Your task to perform on an android device: open a bookmark in the chrome app Image 0: 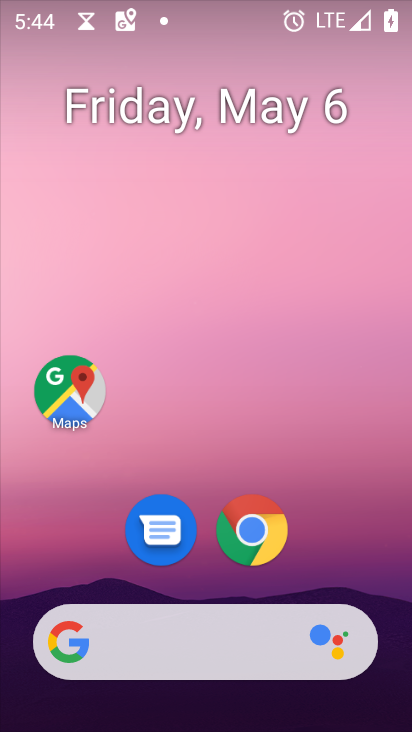
Step 0: click (265, 525)
Your task to perform on an android device: open a bookmark in the chrome app Image 1: 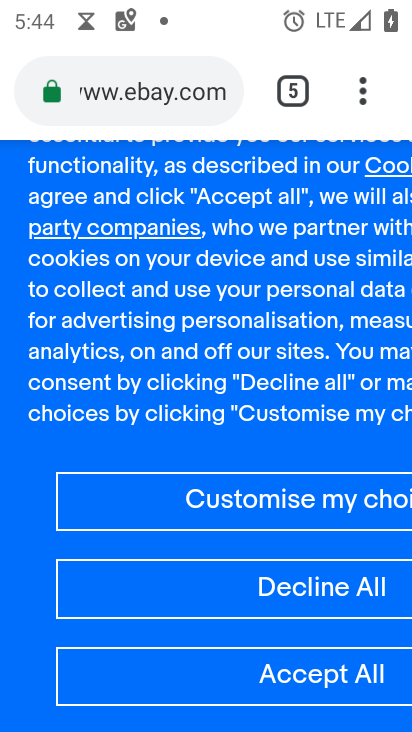
Step 1: click (363, 84)
Your task to perform on an android device: open a bookmark in the chrome app Image 2: 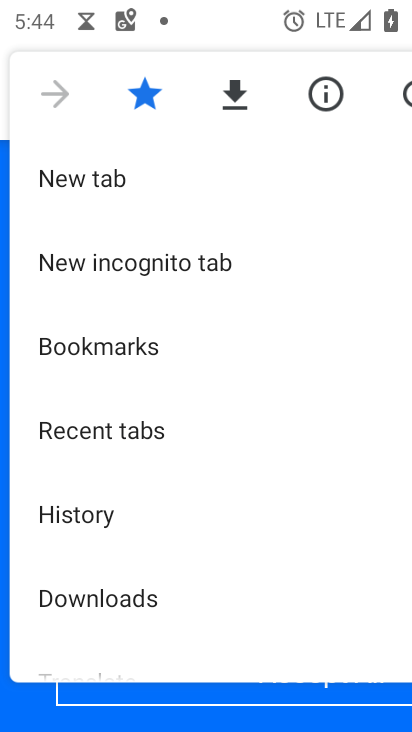
Step 2: click (119, 344)
Your task to perform on an android device: open a bookmark in the chrome app Image 3: 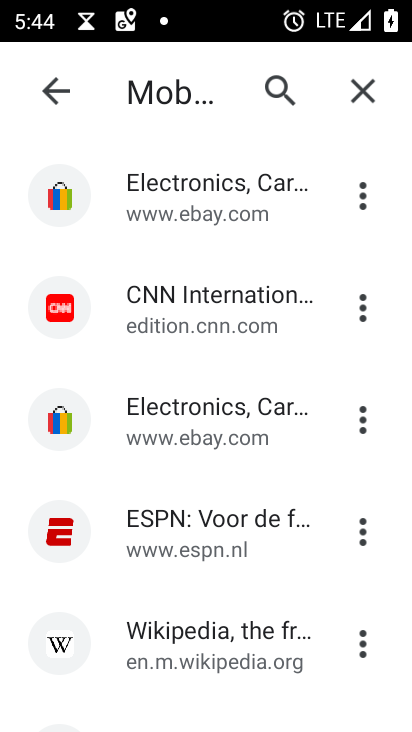
Step 3: click (189, 415)
Your task to perform on an android device: open a bookmark in the chrome app Image 4: 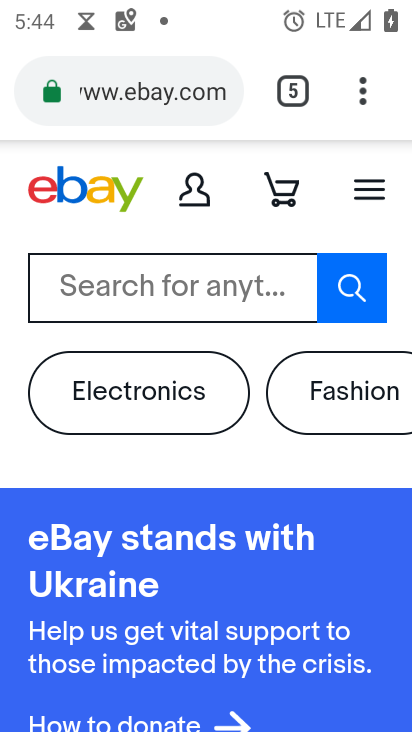
Step 4: task complete